Your task to perform on an android device: Search for "razer huntsman" on bestbuy, select the first entry, add it to the cart, then select checkout. Image 0: 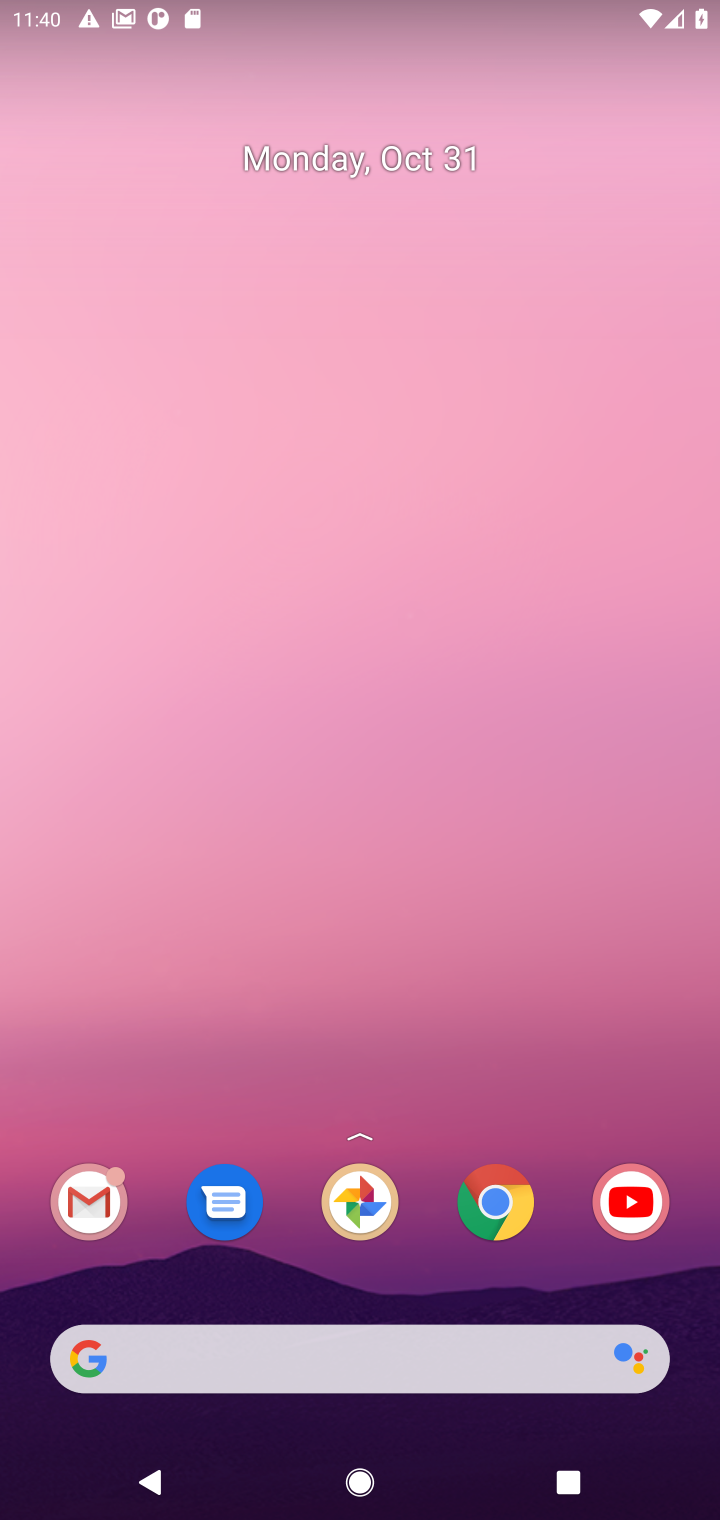
Step 0: click (487, 1205)
Your task to perform on an android device: Search for "razer huntsman" on bestbuy, select the first entry, add it to the cart, then select checkout. Image 1: 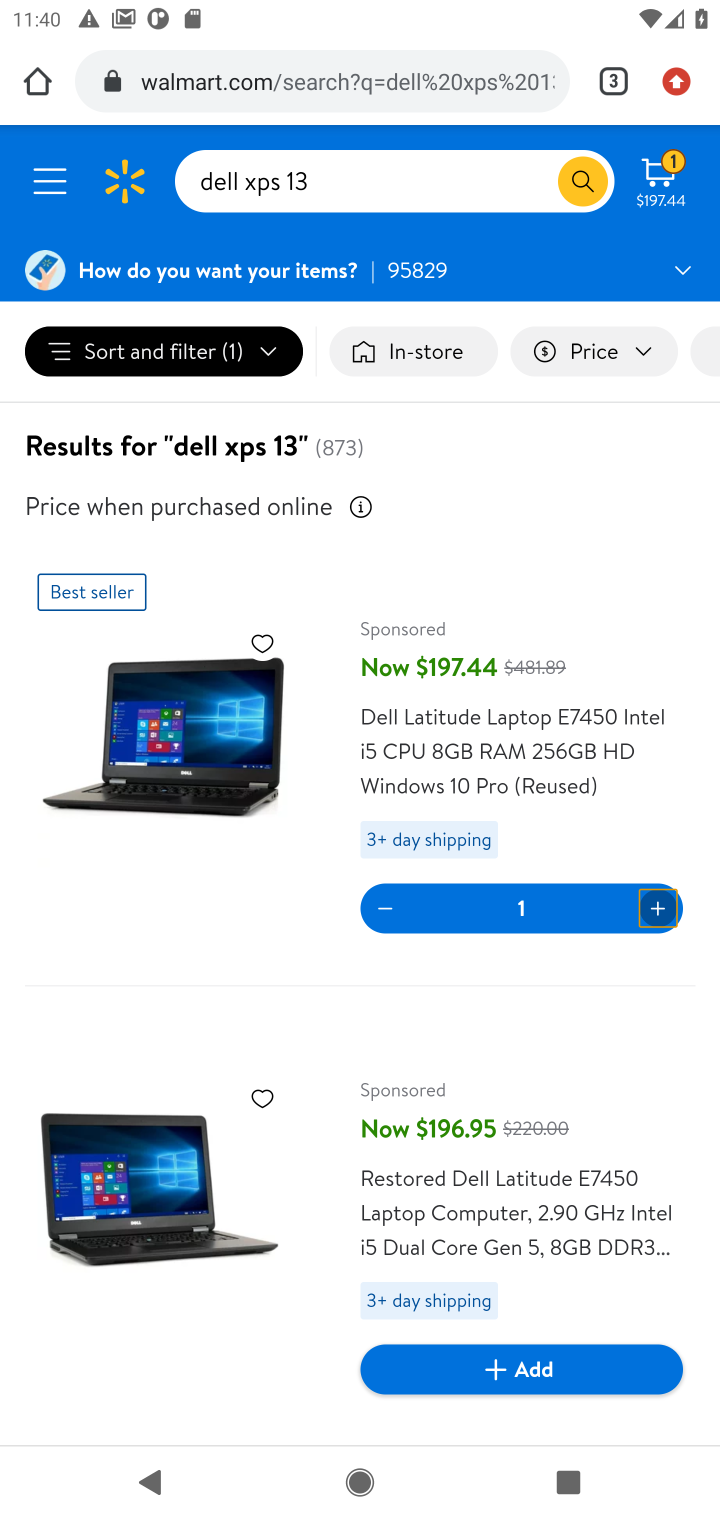
Step 1: click (602, 74)
Your task to perform on an android device: Search for "razer huntsman" on bestbuy, select the first entry, add it to the cart, then select checkout. Image 2: 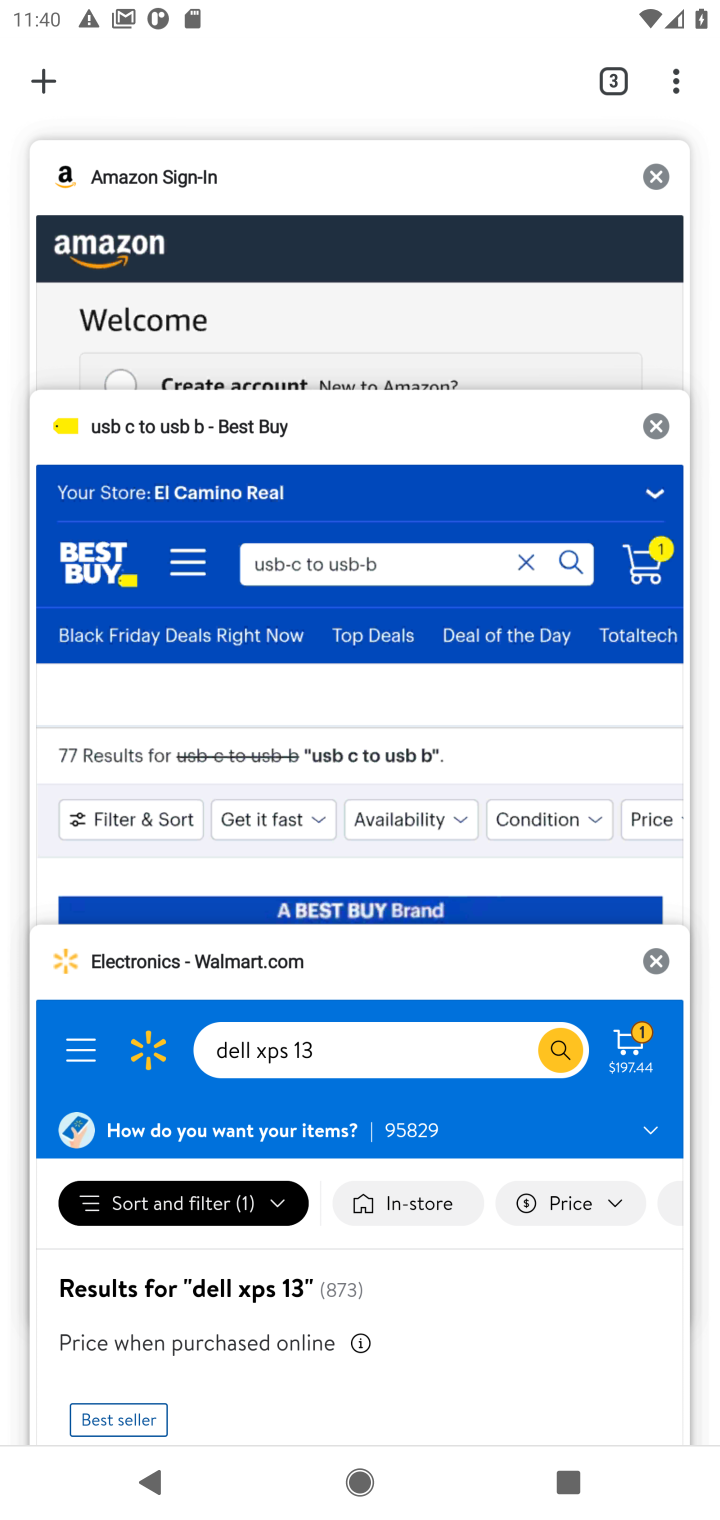
Step 2: click (188, 531)
Your task to perform on an android device: Search for "razer huntsman" on bestbuy, select the first entry, add it to the cart, then select checkout. Image 3: 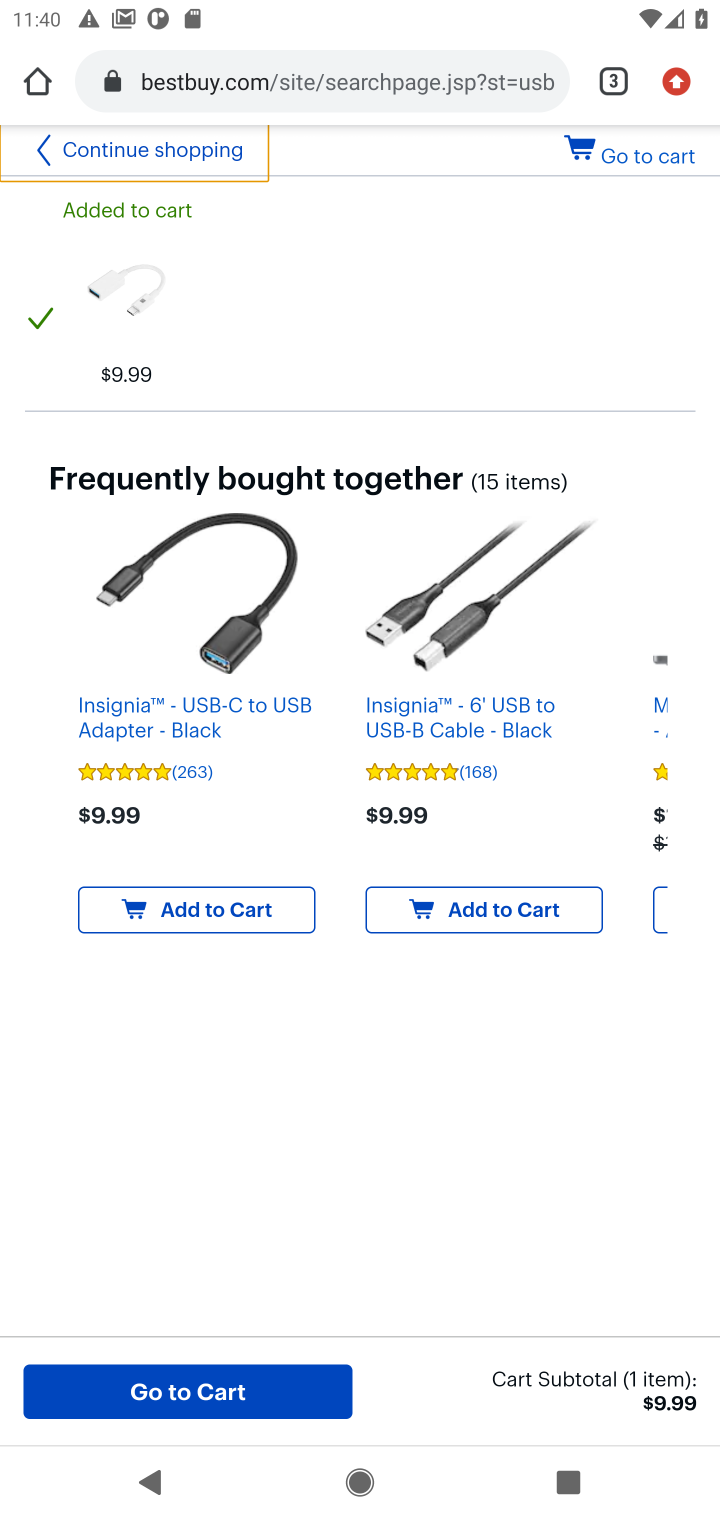
Step 3: click (134, 143)
Your task to perform on an android device: Search for "razer huntsman" on bestbuy, select the first entry, add it to the cart, then select checkout. Image 4: 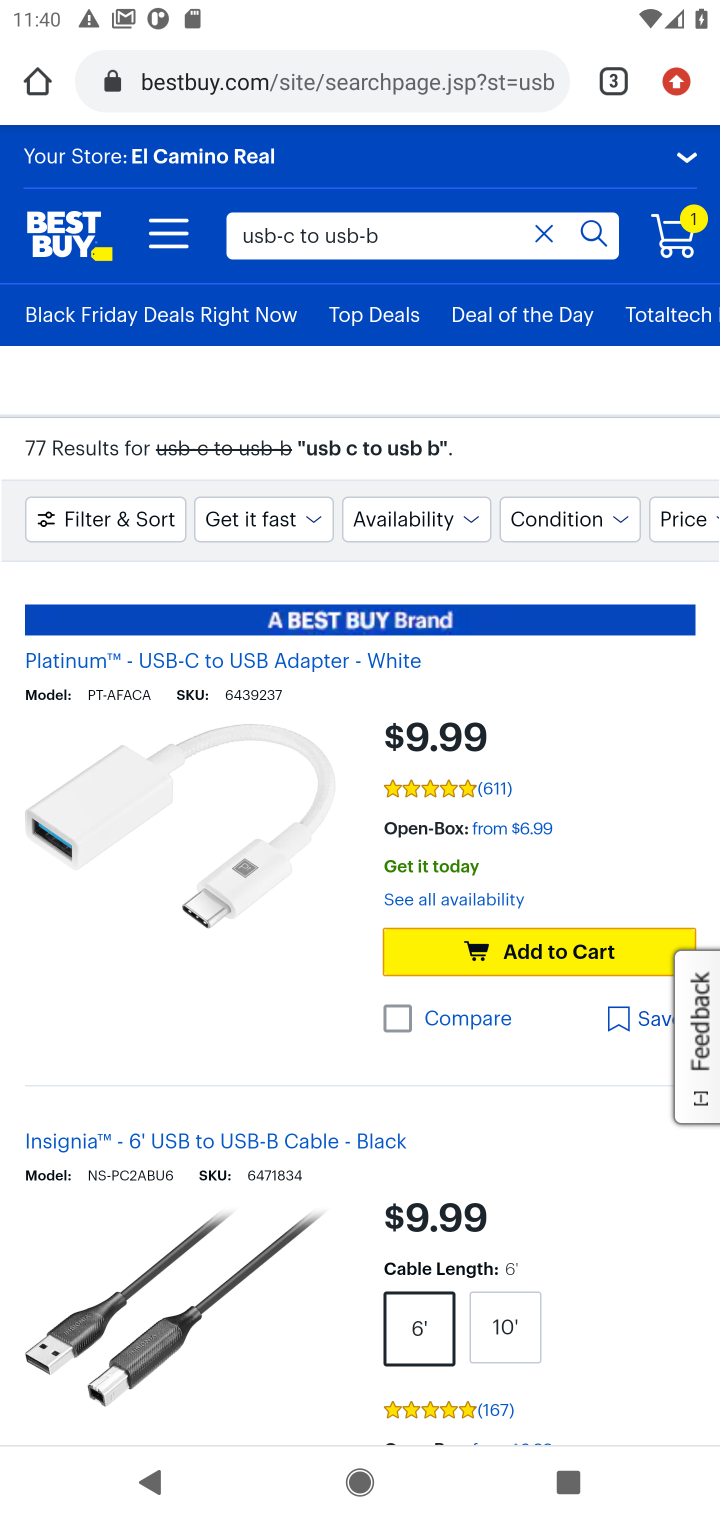
Step 4: click (544, 231)
Your task to perform on an android device: Search for "razer huntsman" on bestbuy, select the first entry, add it to the cart, then select checkout. Image 5: 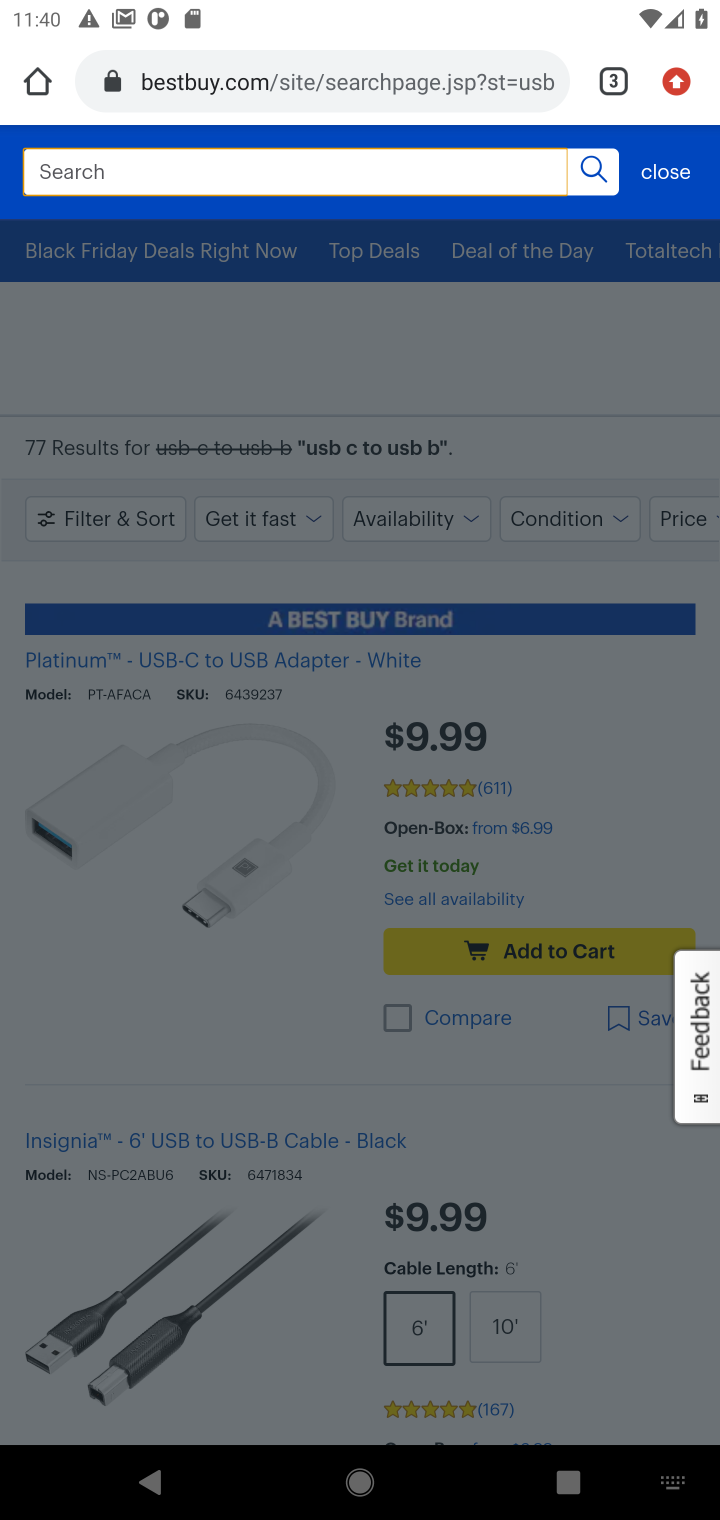
Step 5: type "razer huntsman"
Your task to perform on an android device: Search for "razer huntsman" on bestbuy, select the first entry, add it to the cart, then select checkout. Image 6: 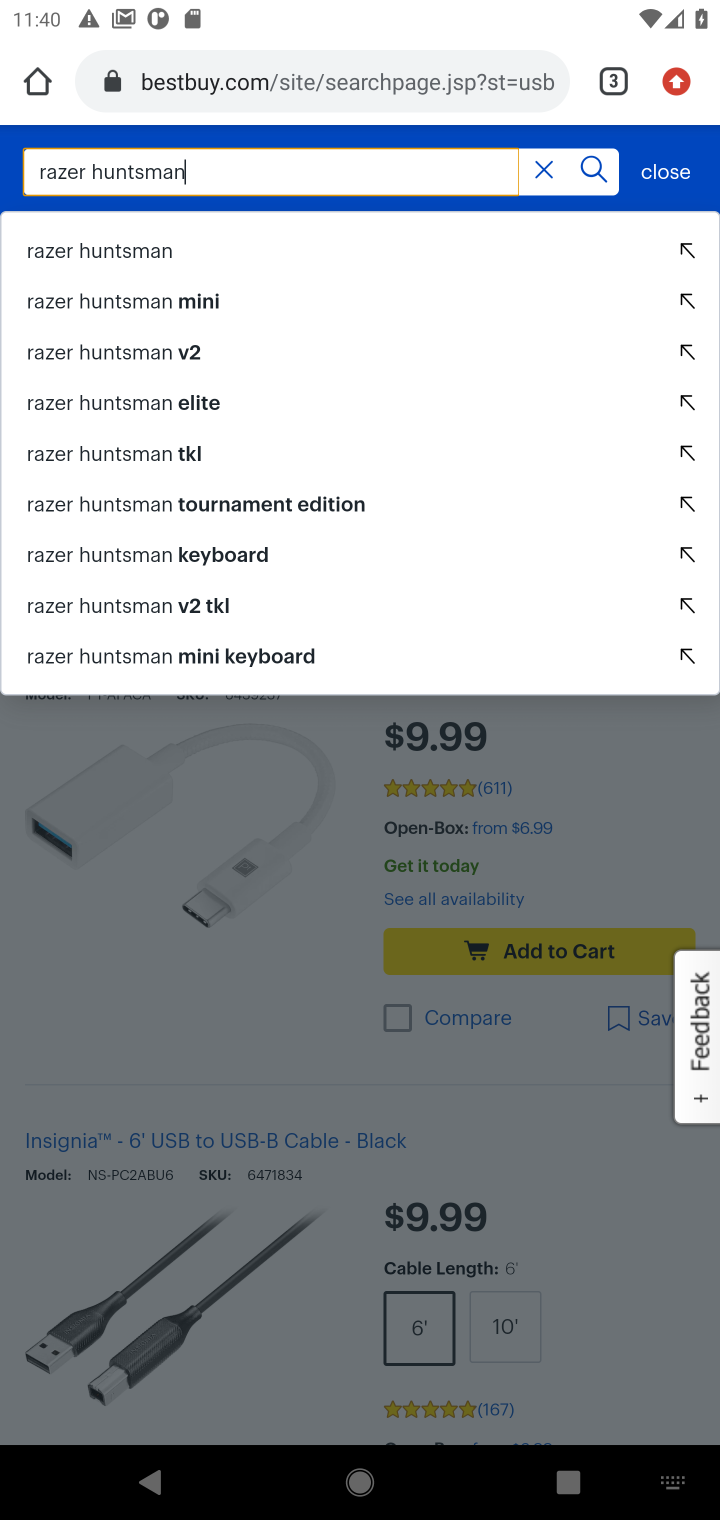
Step 6: click (49, 238)
Your task to perform on an android device: Search for "razer huntsman" on bestbuy, select the first entry, add it to the cart, then select checkout. Image 7: 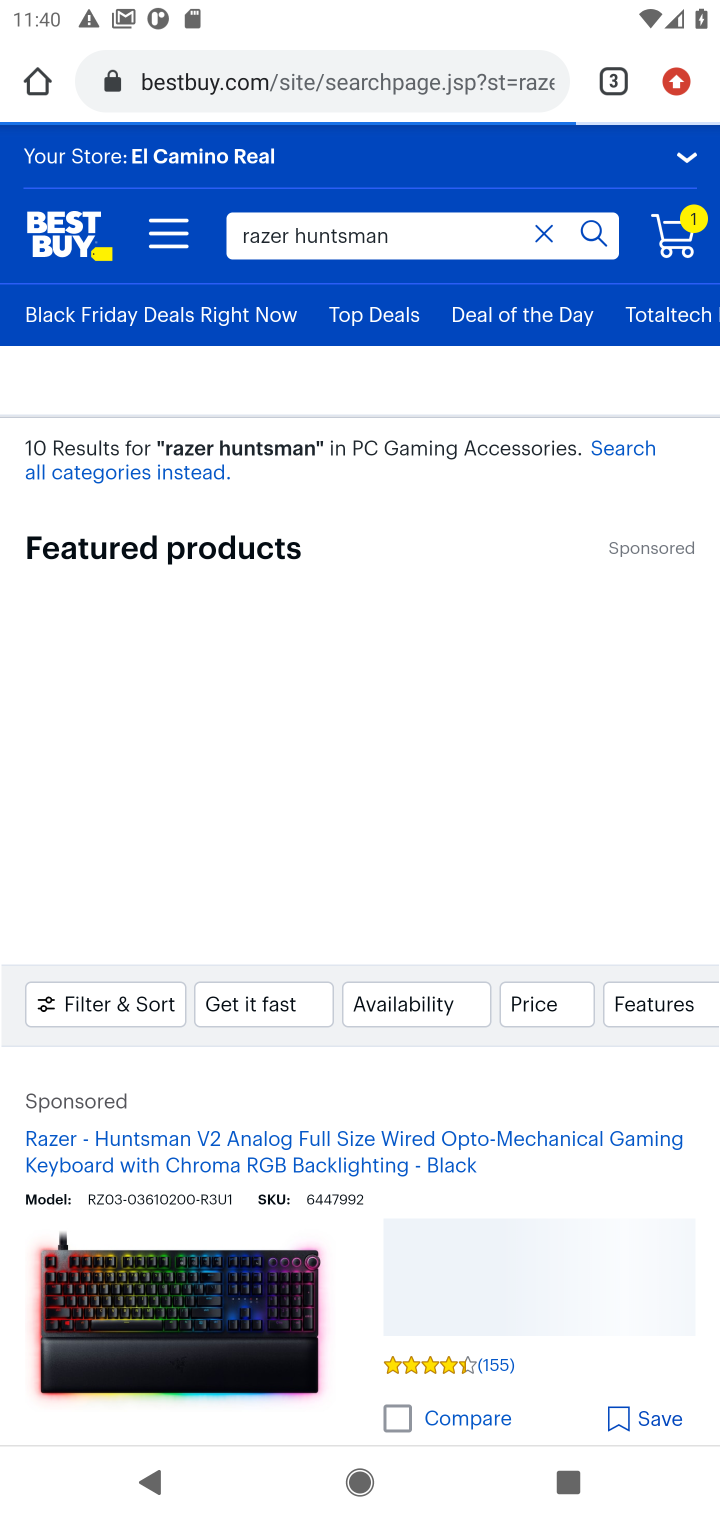
Step 7: click (406, 1152)
Your task to perform on an android device: Search for "razer huntsman" on bestbuy, select the first entry, add it to the cart, then select checkout. Image 8: 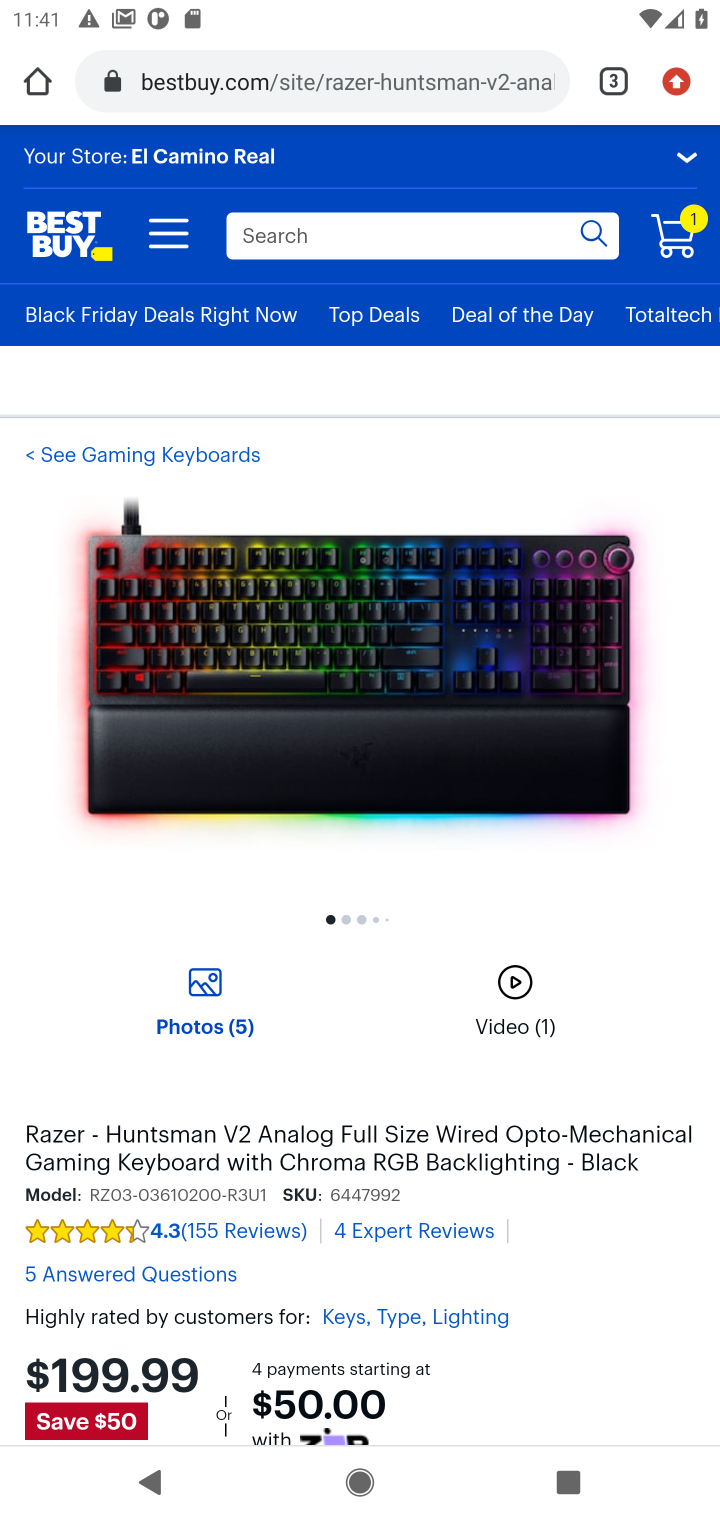
Step 8: drag from (525, 1270) to (663, 634)
Your task to perform on an android device: Search for "razer huntsman" on bestbuy, select the first entry, add it to the cart, then select checkout. Image 9: 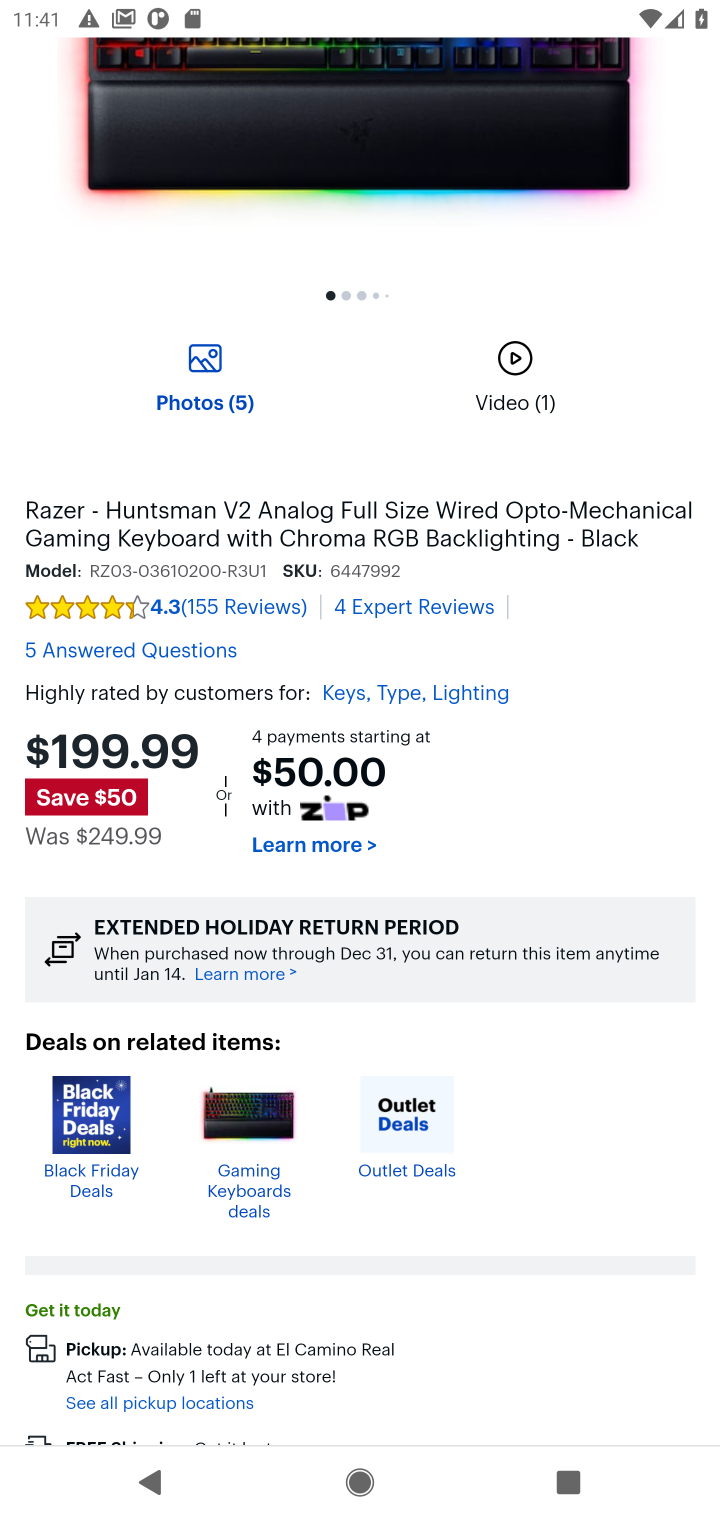
Step 9: drag from (490, 1189) to (563, 361)
Your task to perform on an android device: Search for "razer huntsman" on bestbuy, select the first entry, add it to the cart, then select checkout. Image 10: 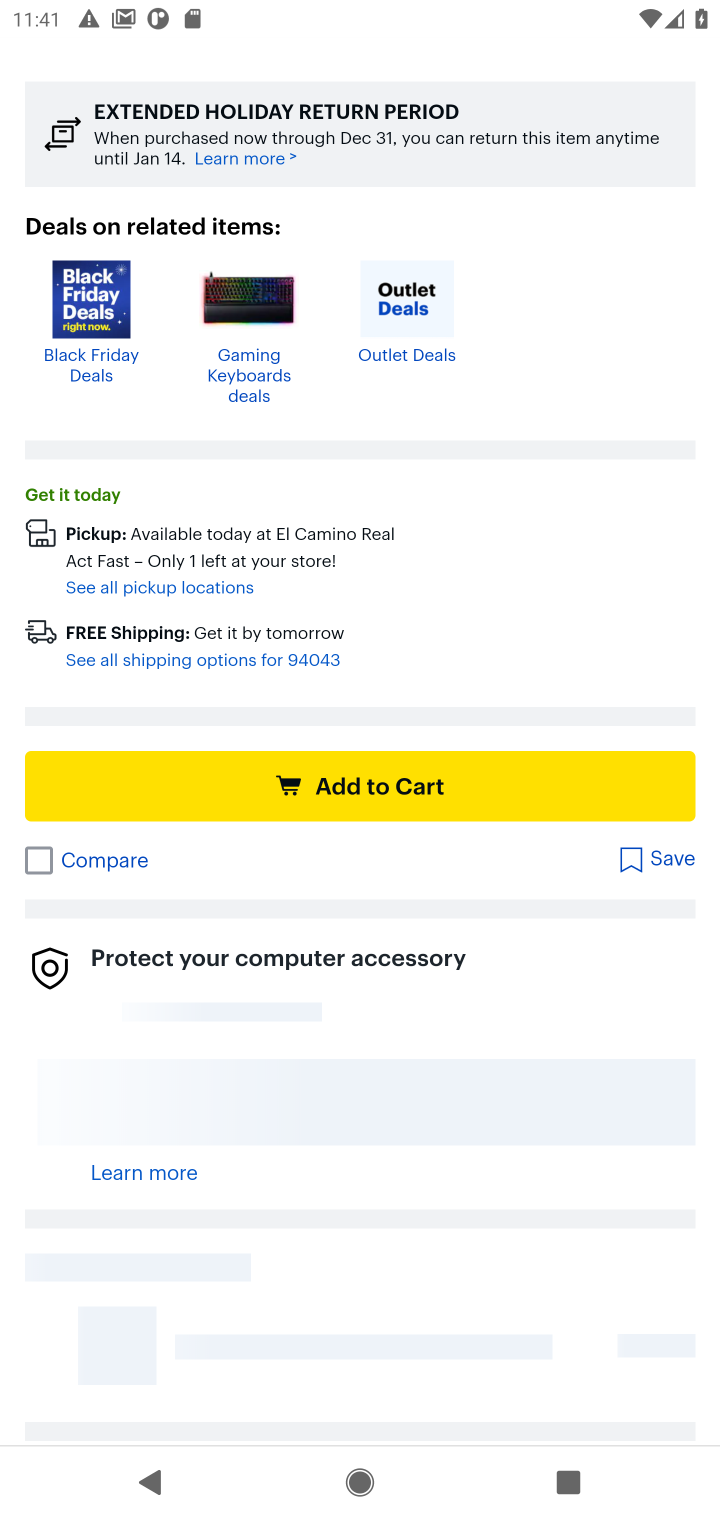
Step 10: click (490, 788)
Your task to perform on an android device: Search for "razer huntsman" on bestbuy, select the first entry, add it to the cart, then select checkout. Image 11: 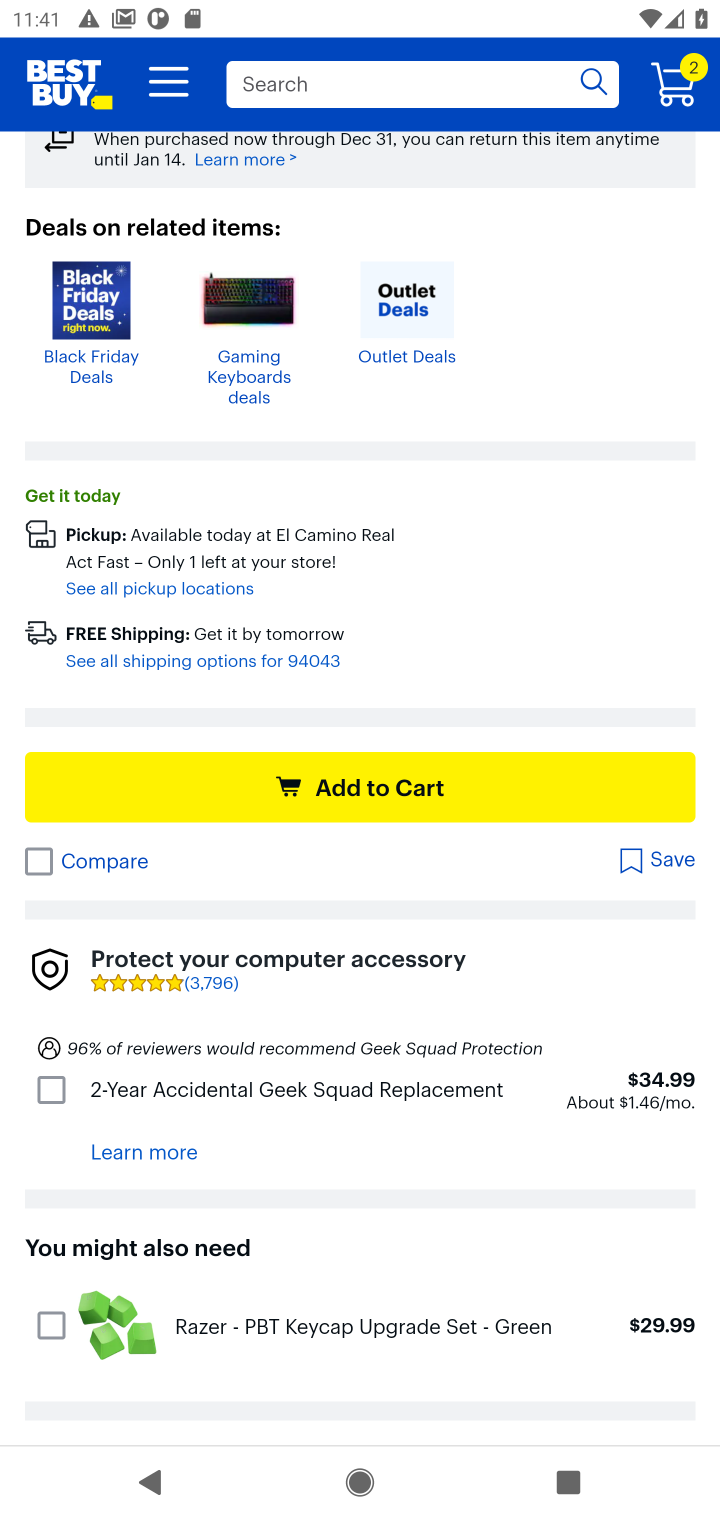
Step 11: task complete